Your task to perform on an android device: Check the weather Image 0: 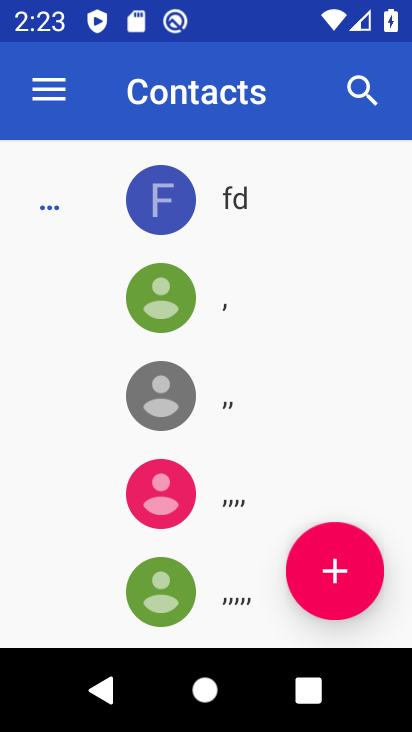
Step 0: press home button
Your task to perform on an android device: Check the weather Image 1: 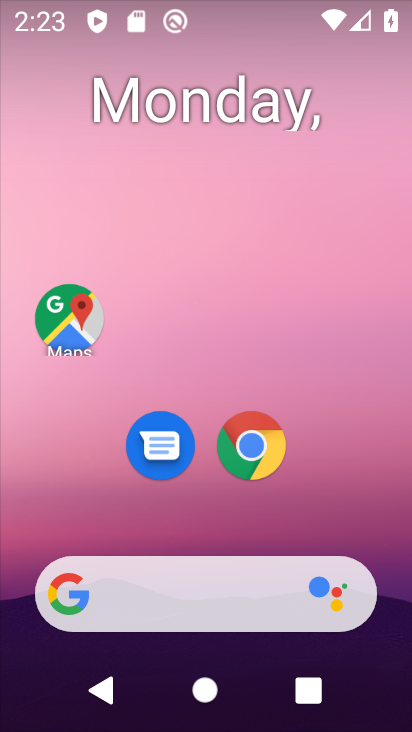
Step 1: click (162, 566)
Your task to perform on an android device: Check the weather Image 2: 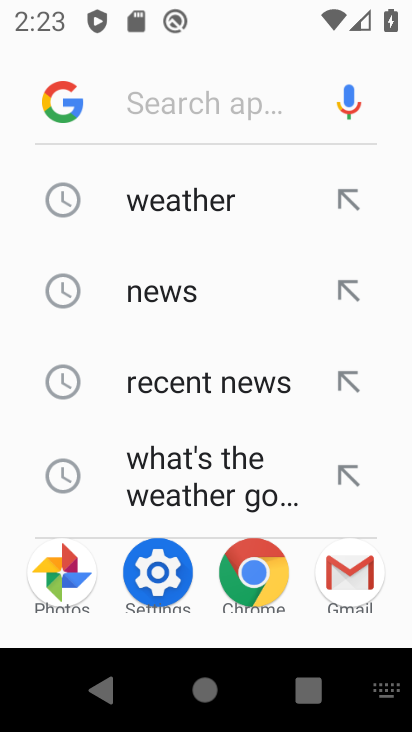
Step 2: click (175, 227)
Your task to perform on an android device: Check the weather Image 3: 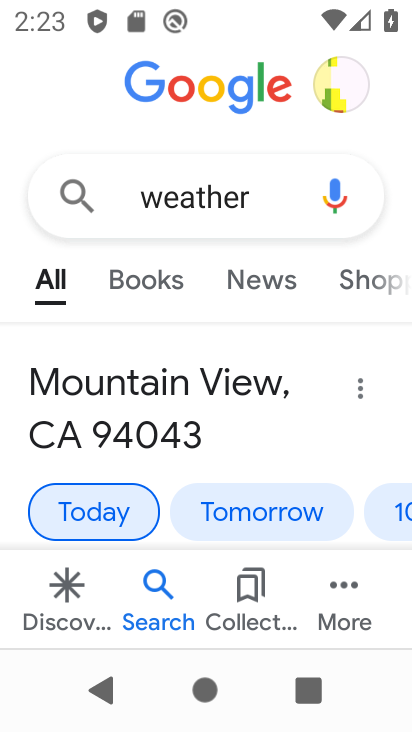
Step 3: task complete